Your task to perform on an android device: Go to Yahoo.com Image 0: 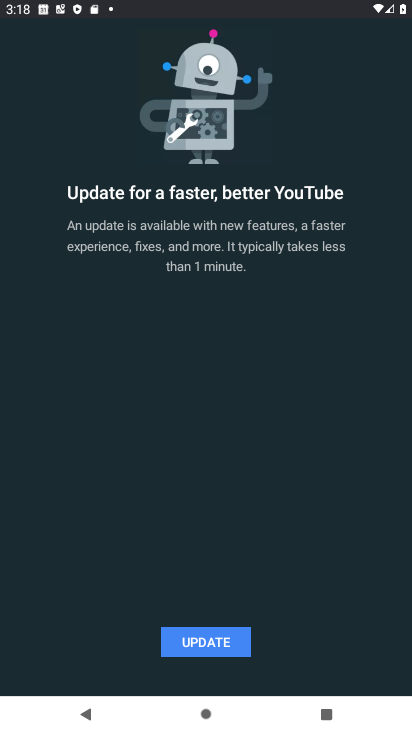
Step 0: press home button
Your task to perform on an android device: Go to Yahoo.com Image 1: 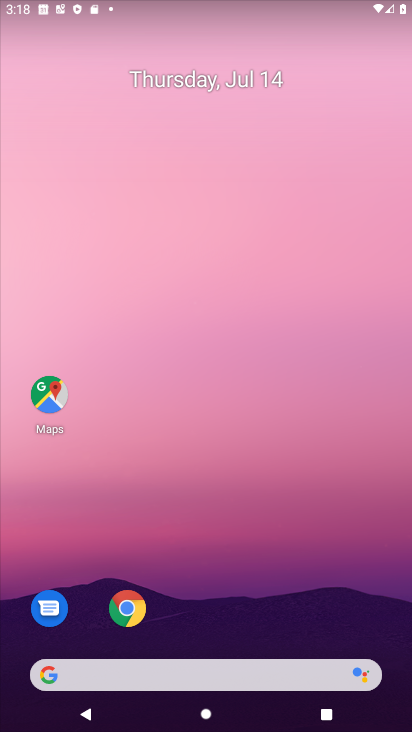
Step 1: click (123, 610)
Your task to perform on an android device: Go to Yahoo.com Image 2: 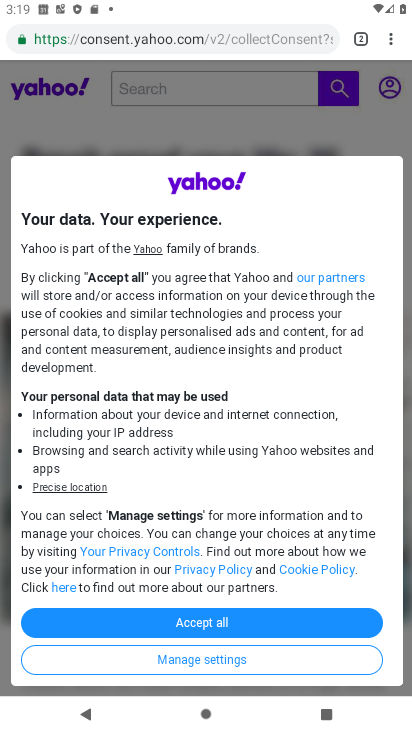
Step 2: task complete